Your task to perform on an android device: Open Chrome and go to settings Image 0: 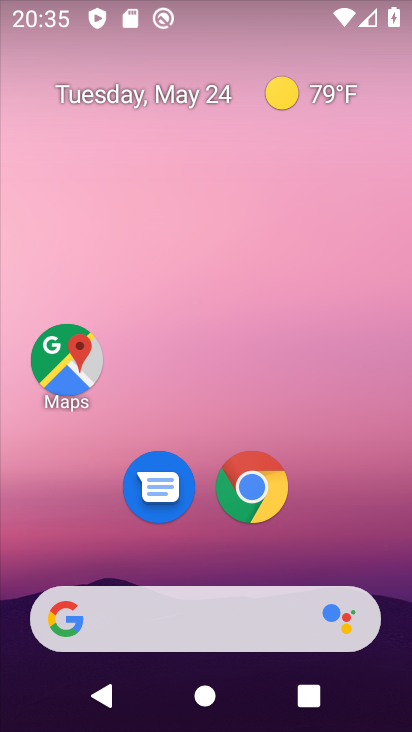
Step 0: click (244, 478)
Your task to perform on an android device: Open Chrome and go to settings Image 1: 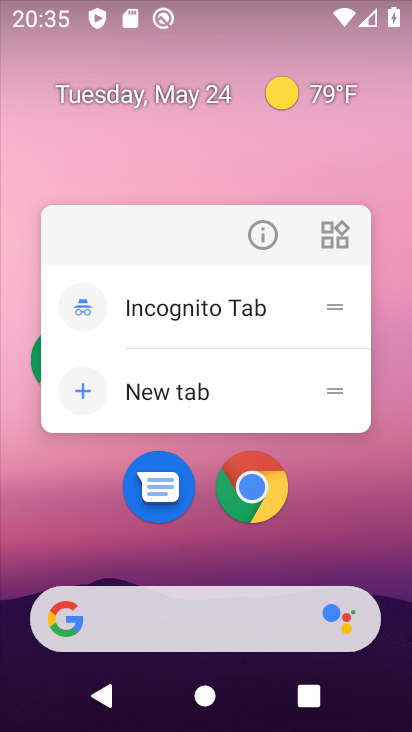
Step 1: click (248, 473)
Your task to perform on an android device: Open Chrome and go to settings Image 2: 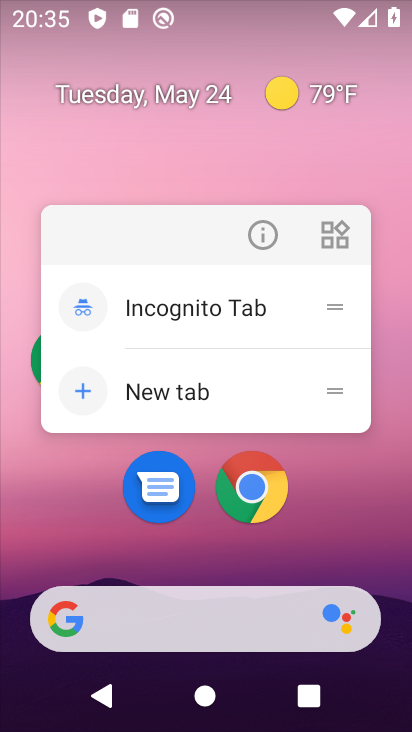
Step 2: click (338, 502)
Your task to perform on an android device: Open Chrome and go to settings Image 3: 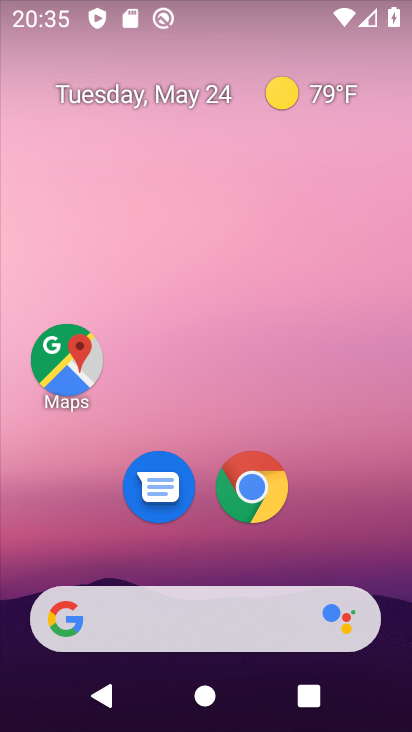
Step 3: drag from (323, 573) to (391, 87)
Your task to perform on an android device: Open Chrome and go to settings Image 4: 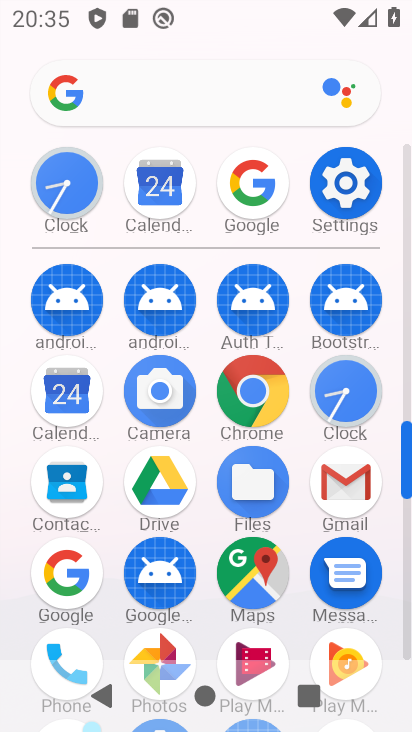
Step 4: click (252, 384)
Your task to perform on an android device: Open Chrome and go to settings Image 5: 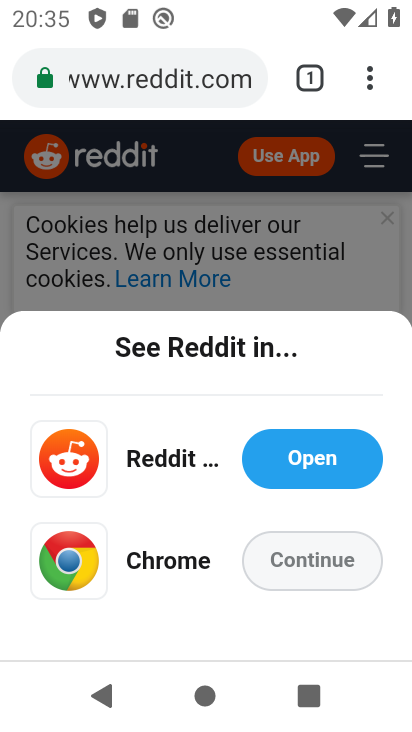
Step 5: task complete